Your task to perform on an android device: What's the weather going to be this weekend? Image 0: 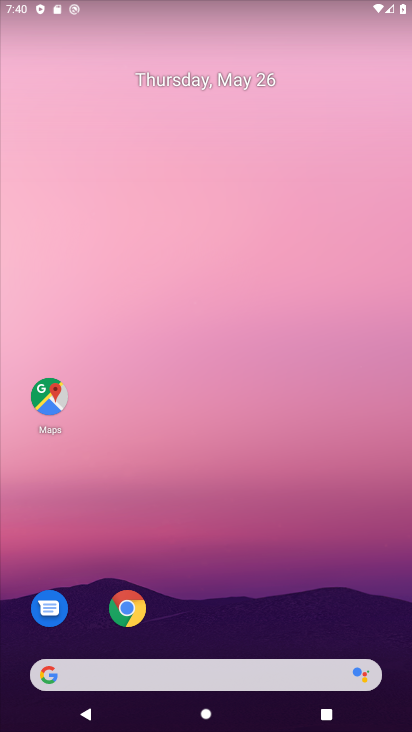
Step 0: drag from (307, 595) to (278, 12)
Your task to perform on an android device: What's the weather going to be this weekend? Image 1: 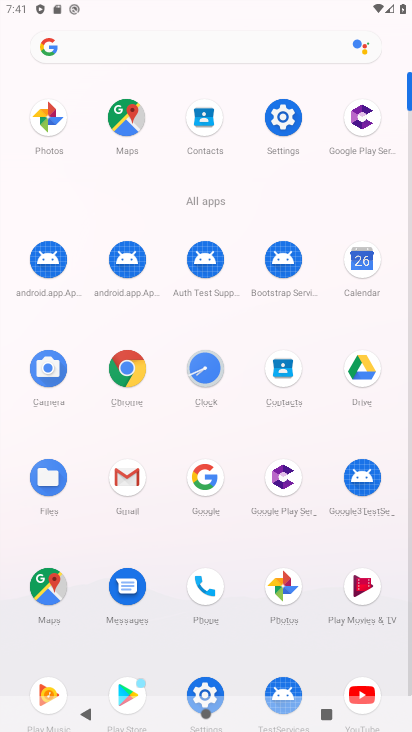
Step 1: click (66, 46)
Your task to perform on an android device: What's the weather going to be this weekend? Image 2: 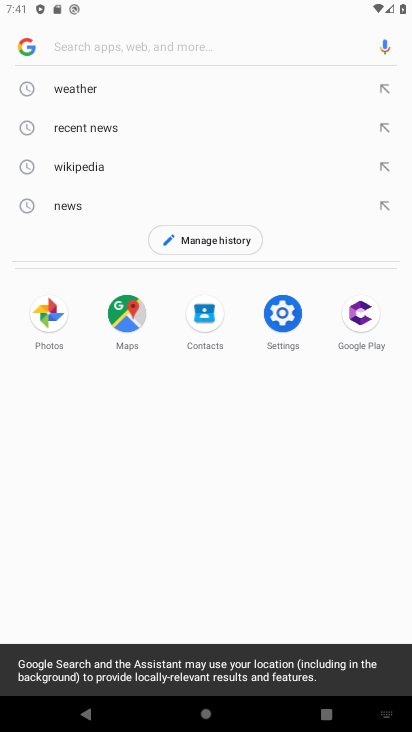
Step 2: click (87, 86)
Your task to perform on an android device: What's the weather going to be this weekend? Image 3: 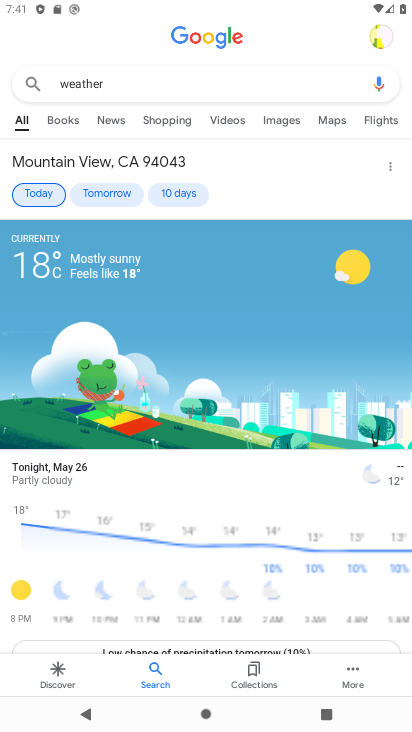
Step 3: click (183, 194)
Your task to perform on an android device: What's the weather going to be this weekend? Image 4: 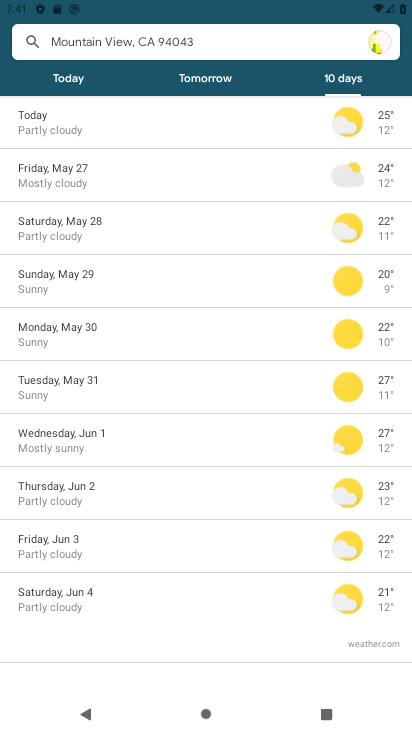
Step 4: task complete